Your task to perform on an android device: Open wifi settings Image 0: 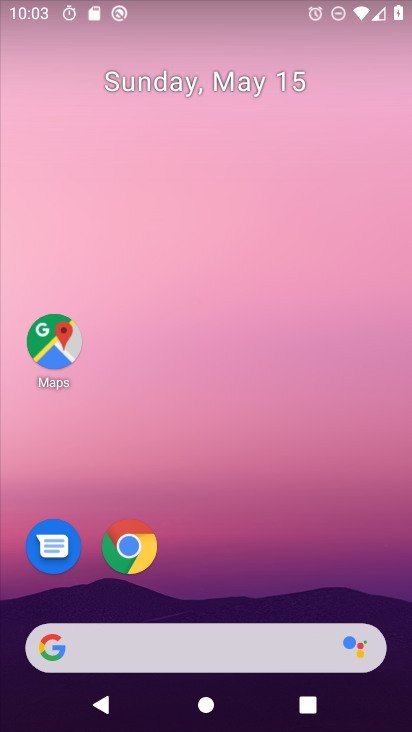
Step 0: drag from (296, 512) to (262, 37)
Your task to perform on an android device: Open wifi settings Image 1: 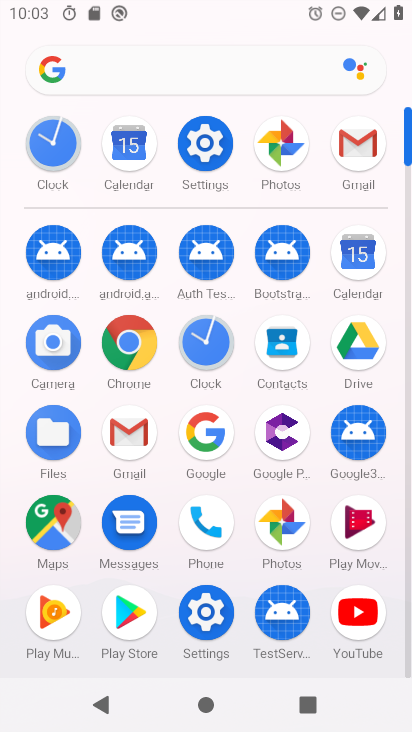
Step 1: click (206, 140)
Your task to perform on an android device: Open wifi settings Image 2: 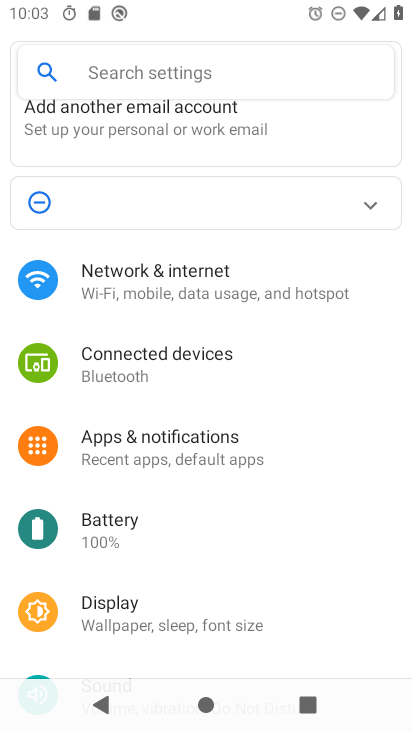
Step 2: click (221, 265)
Your task to perform on an android device: Open wifi settings Image 3: 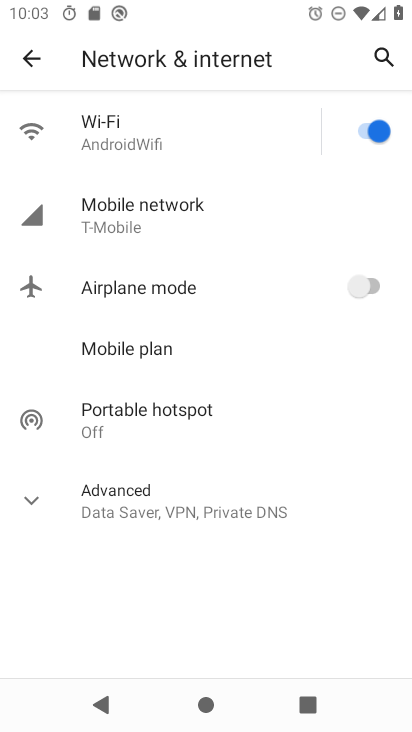
Step 3: click (160, 126)
Your task to perform on an android device: Open wifi settings Image 4: 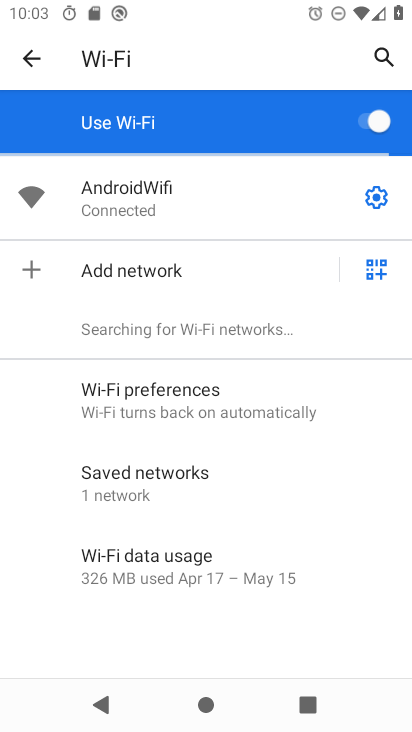
Step 4: task complete